Your task to perform on an android device: Go to privacy settings Image 0: 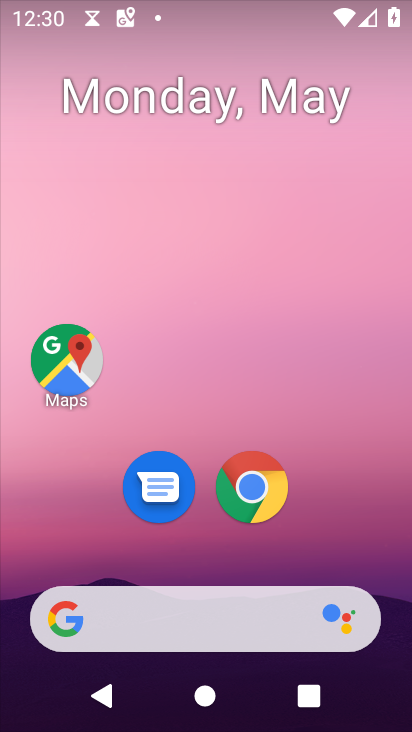
Step 0: drag from (334, 537) to (322, 74)
Your task to perform on an android device: Go to privacy settings Image 1: 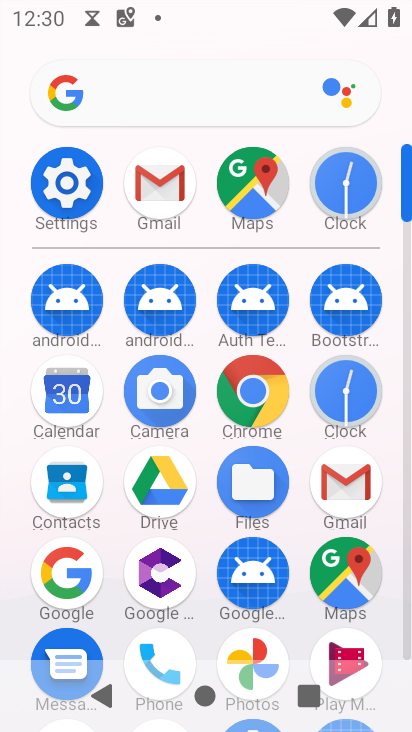
Step 1: click (69, 189)
Your task to perform on an android device: Go to privacy settings Image 2: 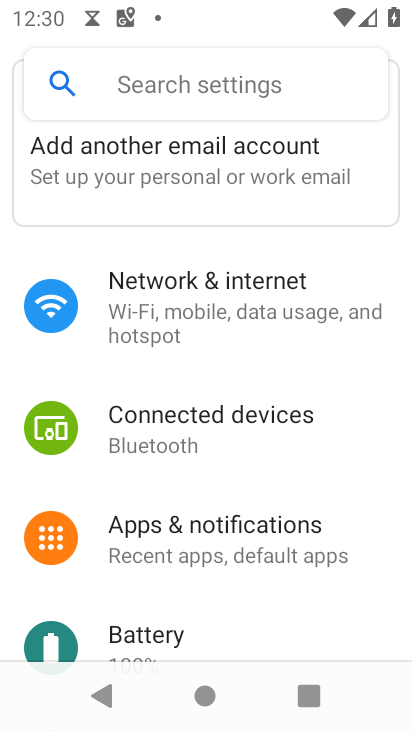
Step 2: drag from (223, 459) to (236, 70)
Your task to perform on an android device: Go to privacy settings Image 3: 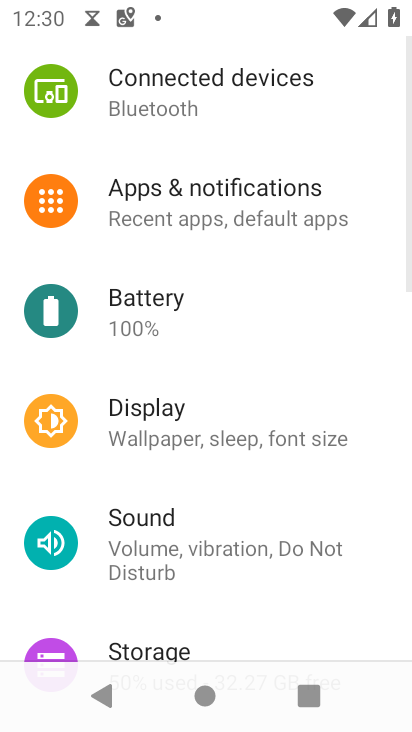
Step 3: drag from (195, 508) to (160, 194)
Your task to perform on an android device: Go to privacy settings Image 4: 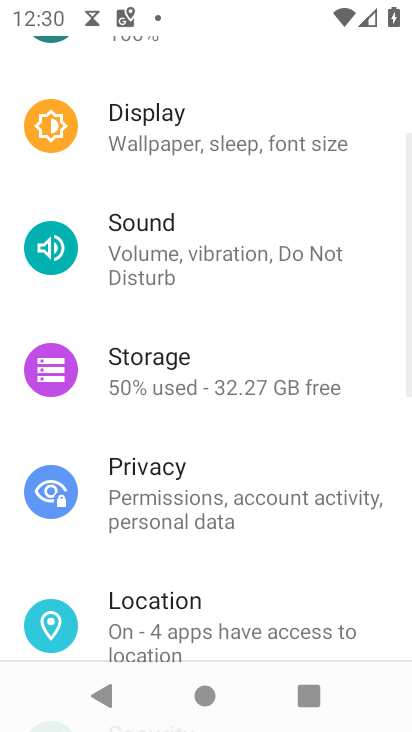
Step 4: drag from (184, 542) to (183, 157)
Your task to perform on an android device: Go to privacy settings Image 5: 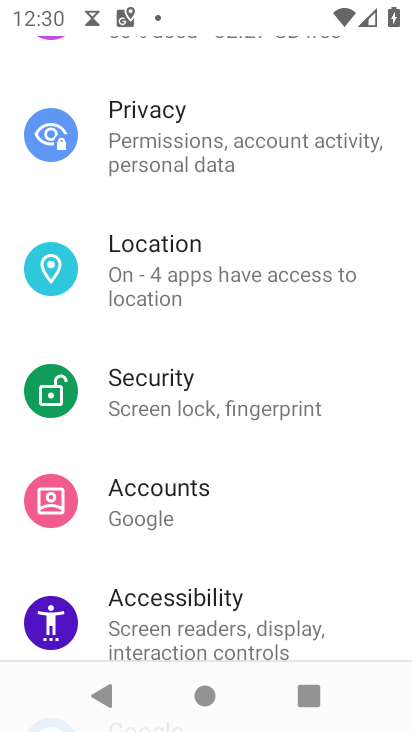
Step 5: drag from (166, 628) to (198, 532)
Your task to perform on an android device: Go to privacy settings Image 6: 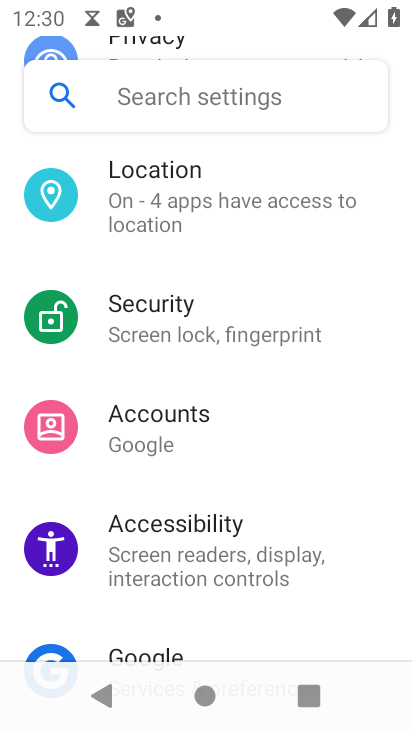
Step 6: drag from (155, 209) to (212, 444)
Your task to perform on an android device: Go to privacy settings Image 7: 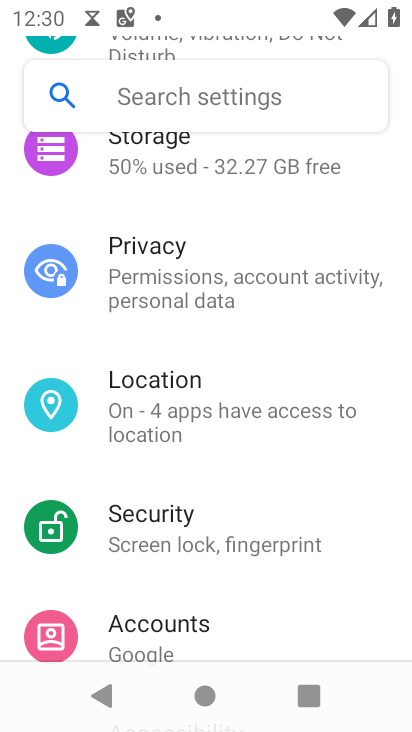
Step 7: click (160, 258)
Your task to perform on an android device: Go to privacy settings Image 8: 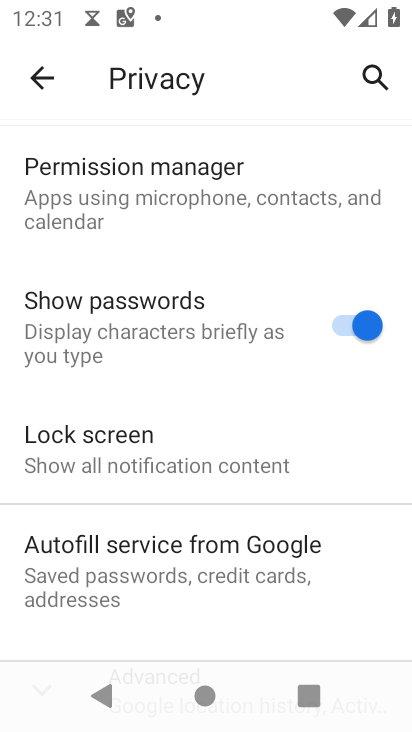
Step 8: task complete